Your task to perform on an android device: change alarm snooze length Image 0: 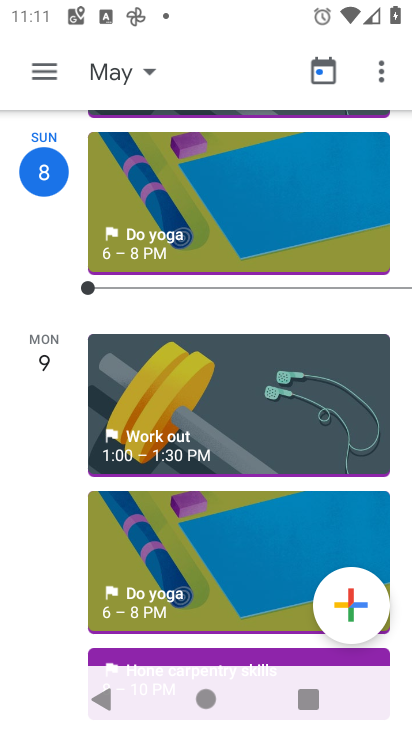
Step 0: press home button
Your task to perform on an android device: change alarm snooze length Image 1: 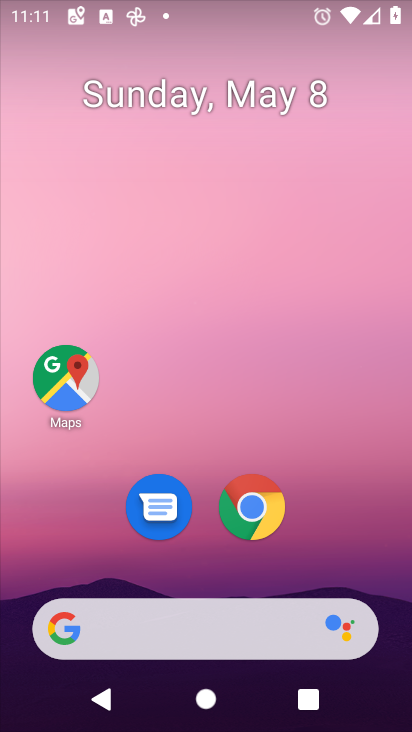
Step 1: drag from (351, 337) to (92, 372)
Your task to perform on an android device: change alarm snooze length Image 2: 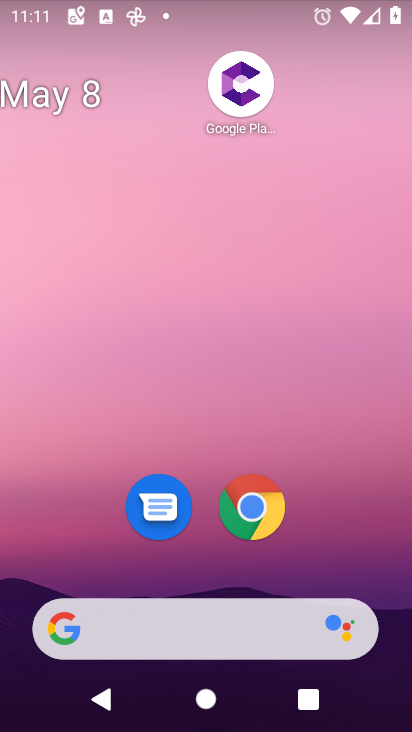
Step 2: drag from (250, 695) to (195, 139)
Your task to perform on an android device: change alarm snooze length Image 3: 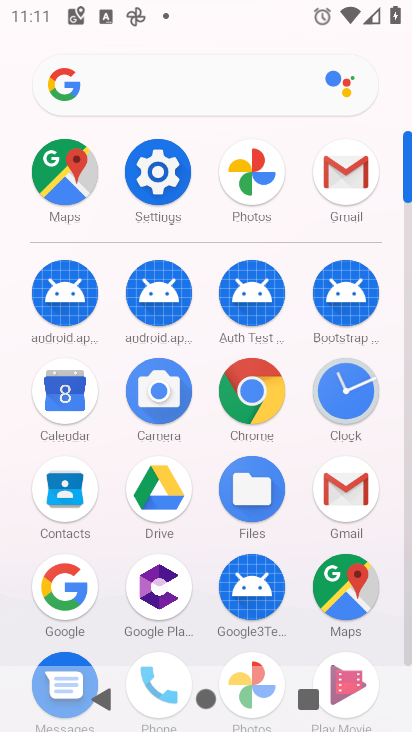
Step 3: click (328, 409)
Your task to perform on an android device: change alarm snooze length Image 4: 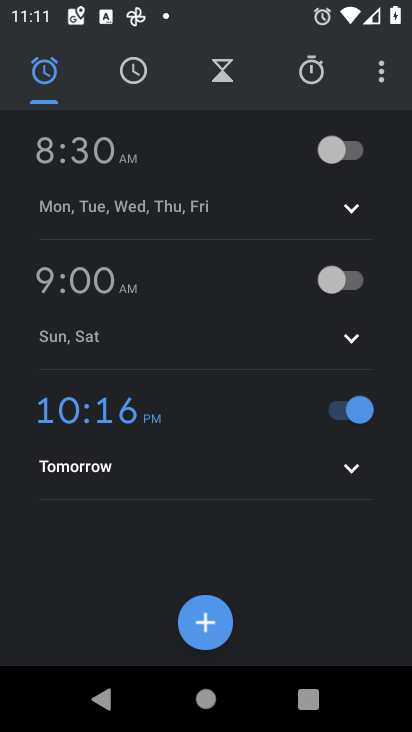
Step 4: click (213, 616)
Your task to perform on an android device: change alarm snooze length Image 5: 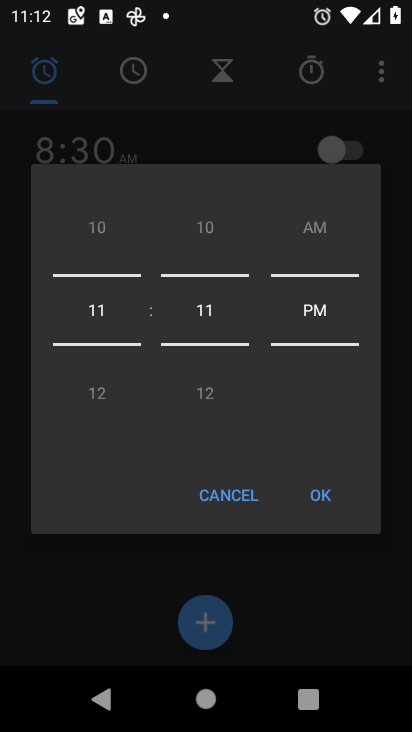
Step 5: click (235, 496)
Your task to perform on an android device: change alarm snooze length Image 6: 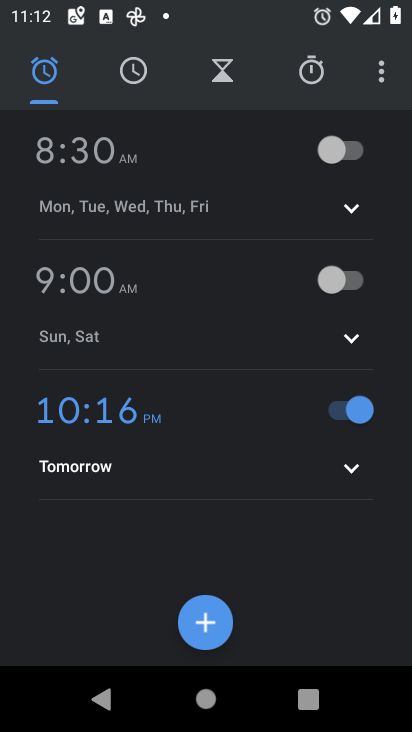
Step 6: click (390, 84)
Your task to perform on an android device: change alarm snooze length Image 7: 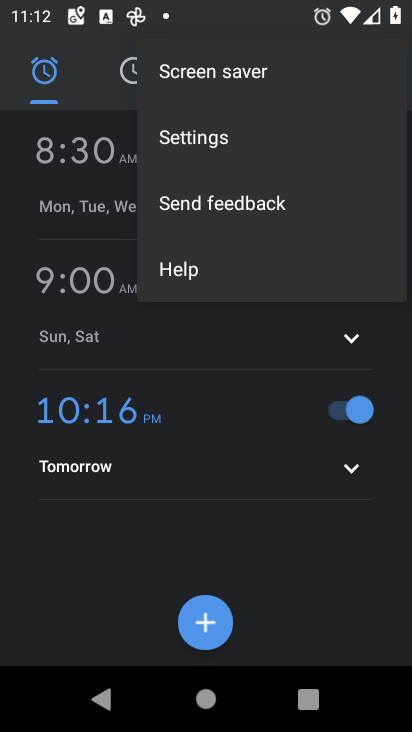
Step 7: click (255, 146)
Your task to perform on an android device: change alarm snooze length Image 8: 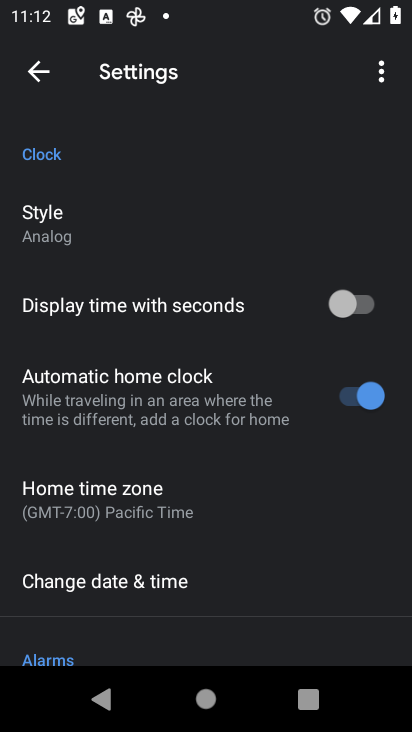
Step 8: drag from (192, 467) to (127, 103)
Your task to perform on an android device: change alarm snooze length Image 9: 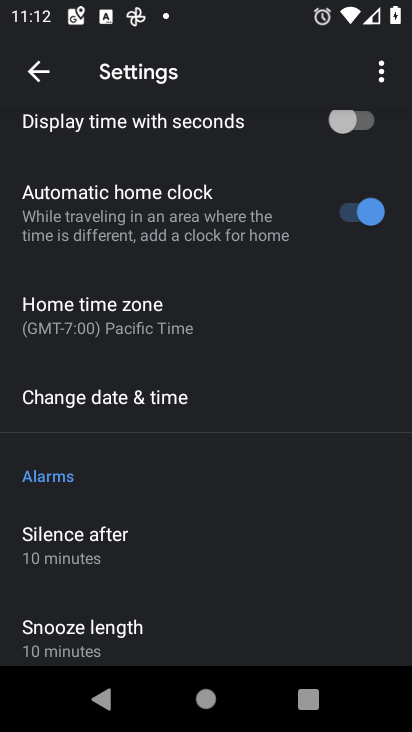
Step 9: click (111, 643)
Your task to perform on an android device: change alarm snooze length Image 10: 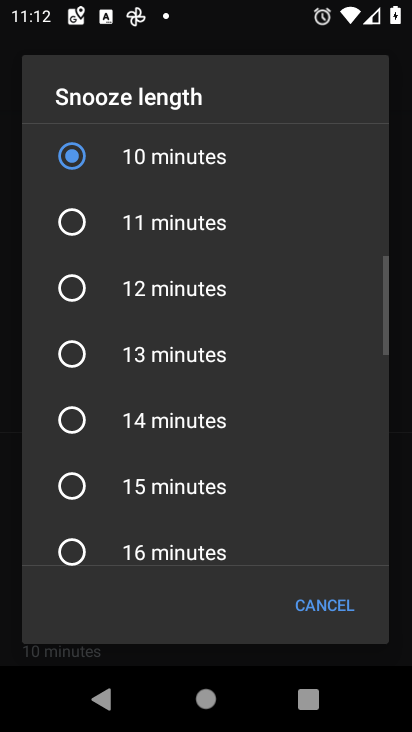
Step 10: click (175, 441)
Your task to perform on an android device: change alarm snooze length Image 11: 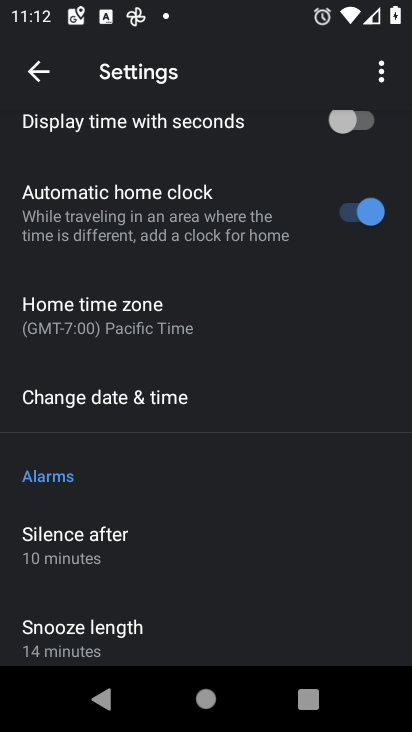
Step 11: task complete